Your task to perform on an android device: Go to Yahoo.com Image 0: 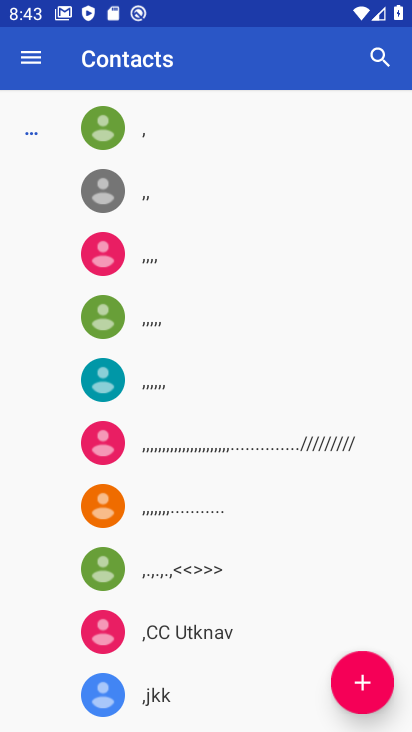
Step 0: press home button
Your task to perform on an android device: Go to Yahoo.com Image 1: 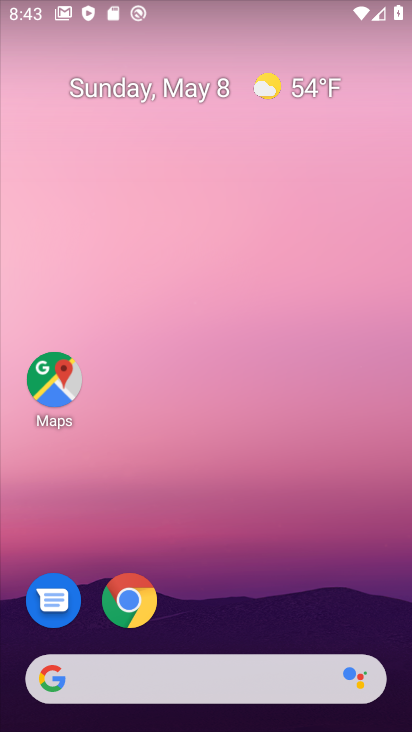
Step 1: click (128, 597)
Your task to perform on an android device: Go to Yahoo.com Image 2: 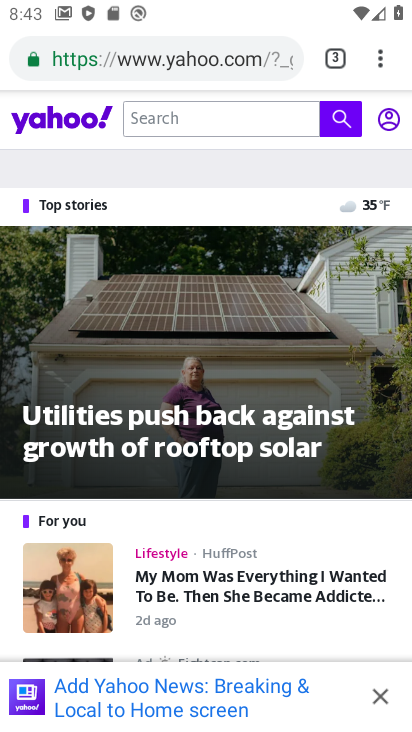
Step 2: task complete